Your task to perform on an android device: visit the assistant section in the google photos Image 0: 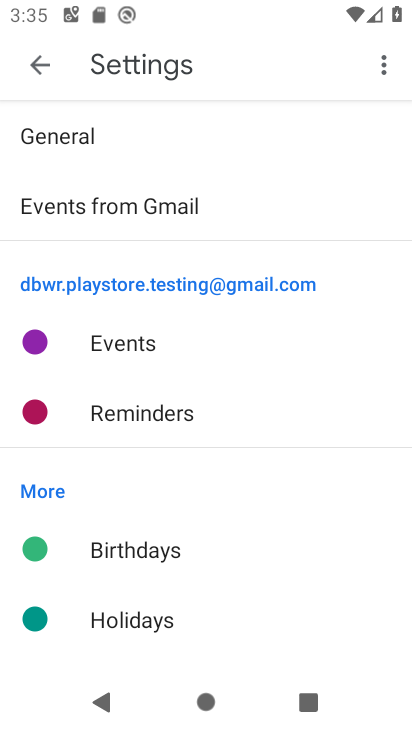
Step 0: press home button
Your task to perform on an android device: visit the assistant section in the google photos Image 1: 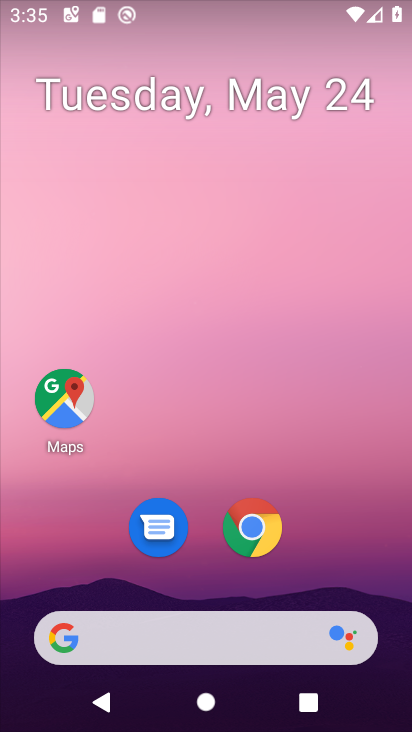
Step 1: drag from (350, 544) to (348, 7)
Your task to perform on an android device: visit the assistant section in the google photos Image 2: 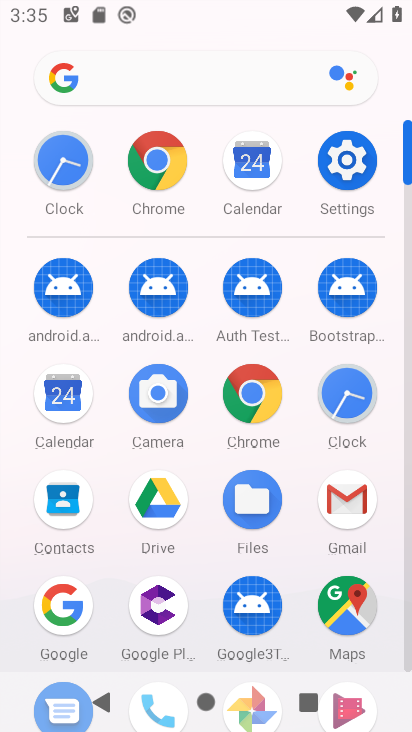
Step 2: click (407, 533)
Your task to perform on an android device: visit the assistant section in the google photos Image 3: 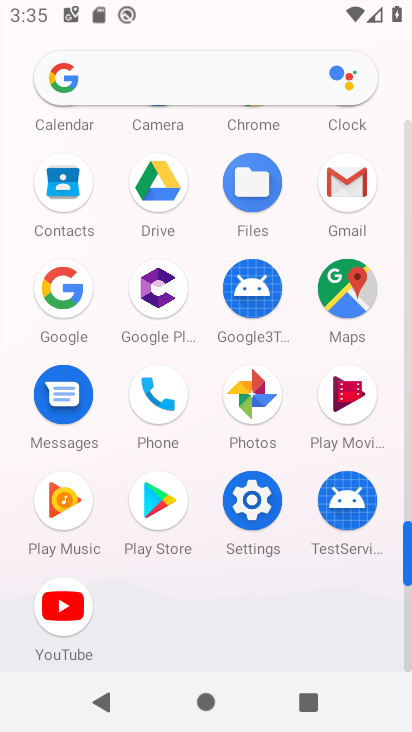
Step 3: click (256, 394)
Your task to perform on an android device: visit the assistant section in the google photos Image 4: 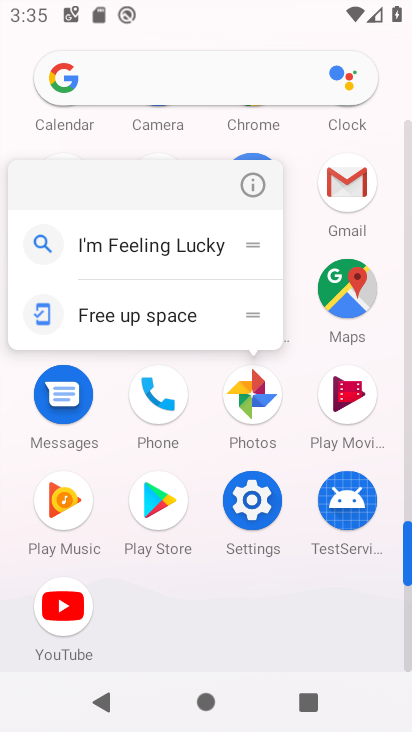
Step 4: click (251, 404)
Your task to perform on an android device: visit the assistant section in the google photos Image 5: 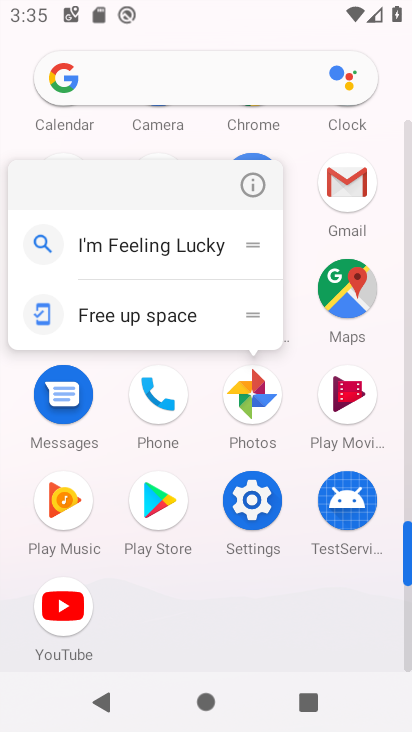
Step 5: click (256, 397)
Your task to perform on an android device: visit the assistant section in the google photos Image 6: 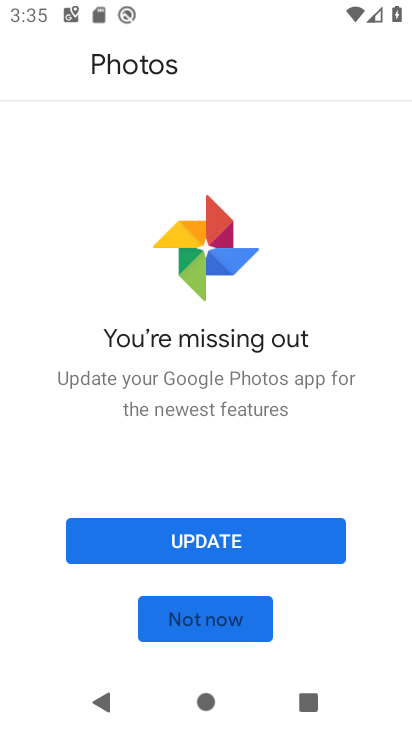
Step 6: click (207, 623)
Your task to perform on an android device: visit the assistant section in the google photos Image 7: 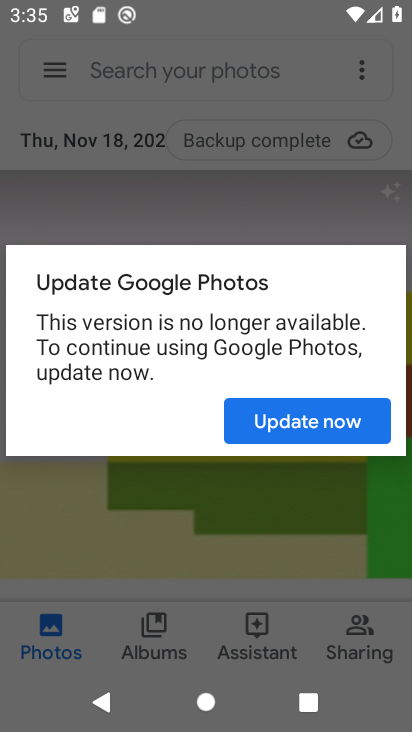
Step 7: click (317, 416)
Your task to perform on an android device: visit the assistant section in the google photos Image 8: 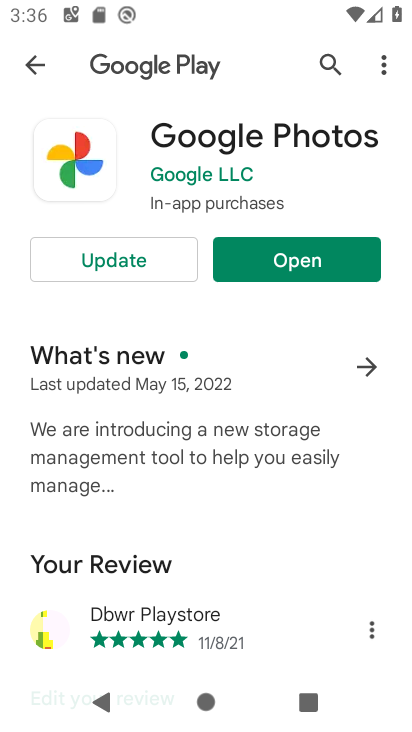
Step 8: click (268, 264)
Your task to perform on an android device: visit the assistant section in the google photos Image 9: 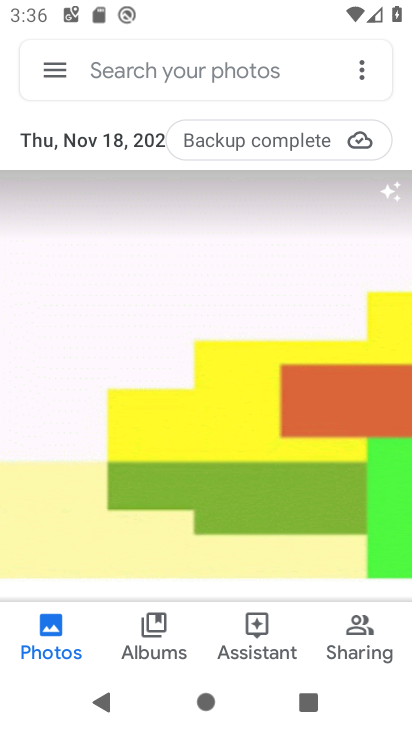
Step 9: click (243, 640)
Your task to perform on an android device: visit the assistant section in the google photos Image 10: 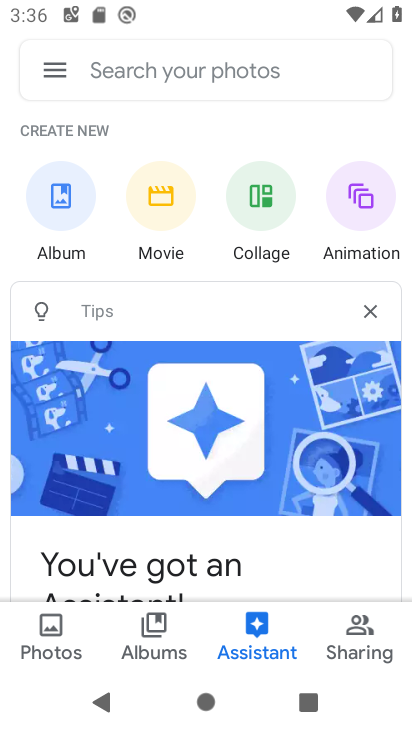
Step 10: task complete